Your task to perform on an android device: Open my contact list Image 0: 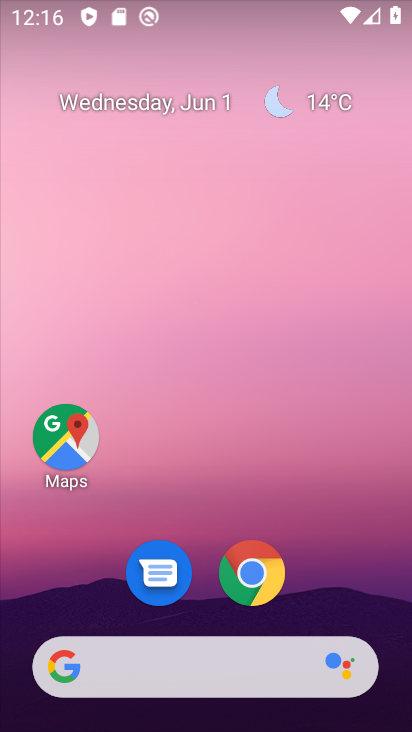
Step 0: drag from (106, 541) to (211, 218)
Your task to perform on an android device: Open my contact list Image 1: 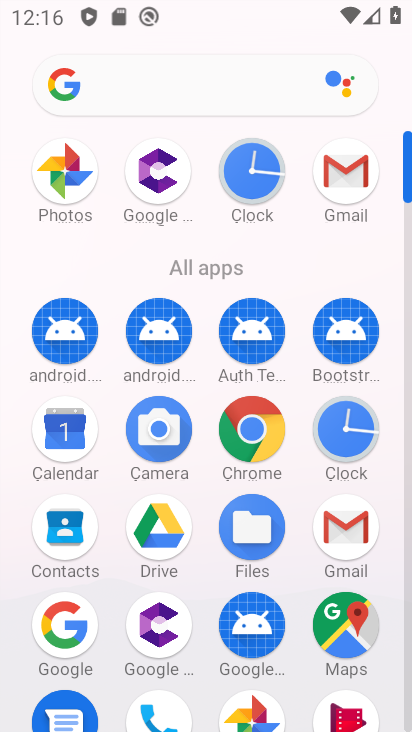
Step 1: click (73, 557)
Your task to perform on an android device: Open my contact list Image 2: 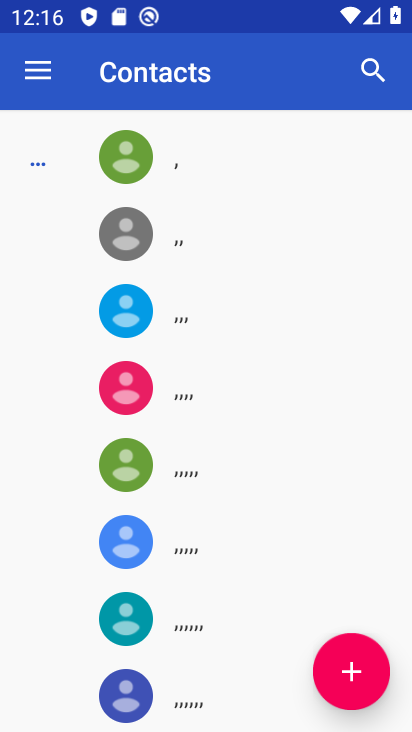
Step 2: task complete